Your task to perform on an android device: toggle javascript in the chrome app Image 0: 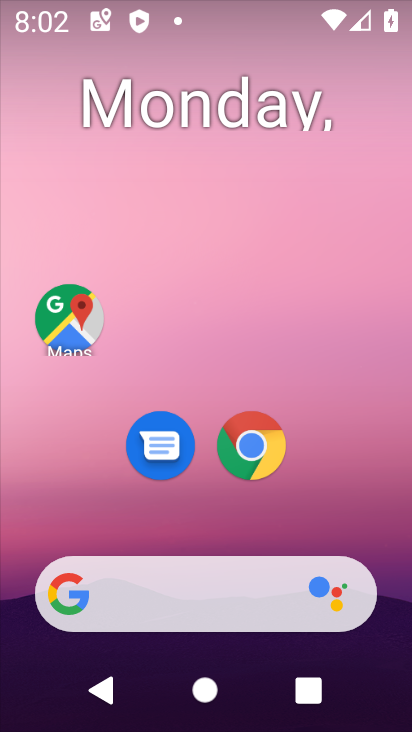
Step 0: click (267, 453)
Your task to perform on an android device: toggle javascript in the chrome app Image 1: 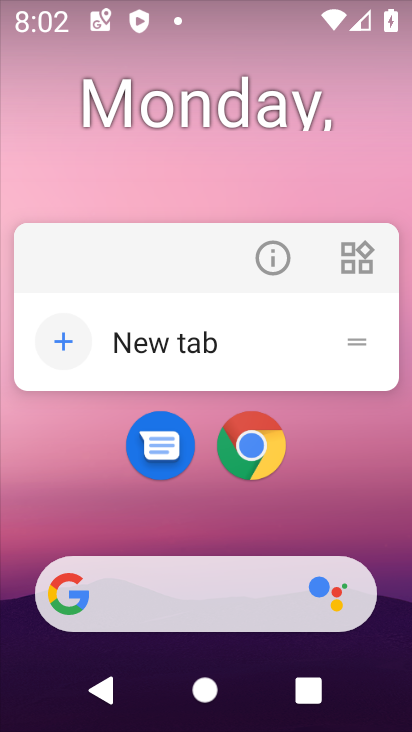
Step 1: click (264, 452)
Your task to perform on an android device: toggle javascript in the chrome app Image 2: 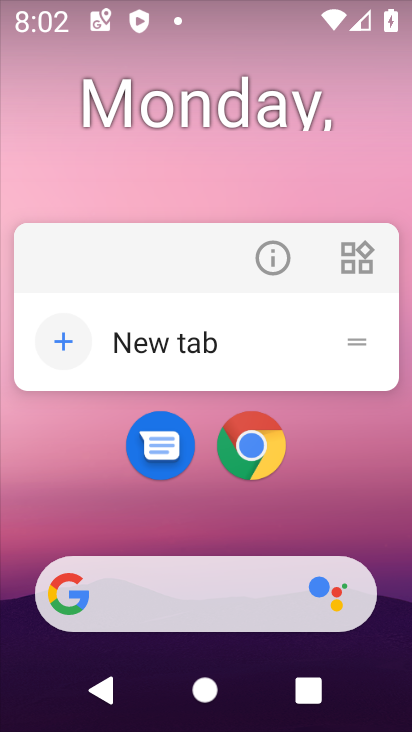
Step 2: click (255, 450)
Your task to perform on an android device: toggle javascript in the chrome app Image 3: 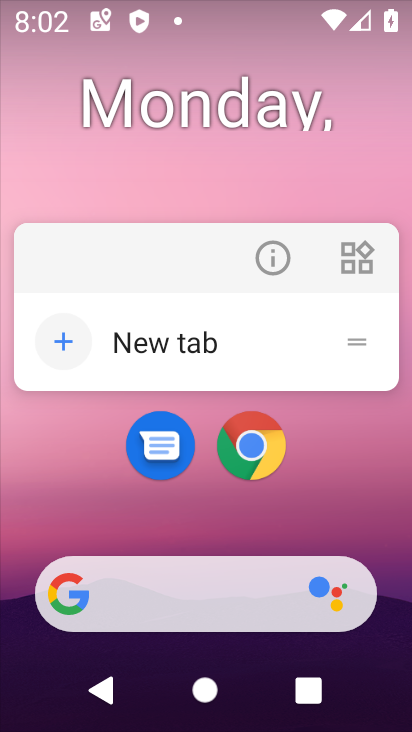
Step 3: click (257, 480)
Your task to perform on an android device: toggle javascript in the chrome app Image 4: 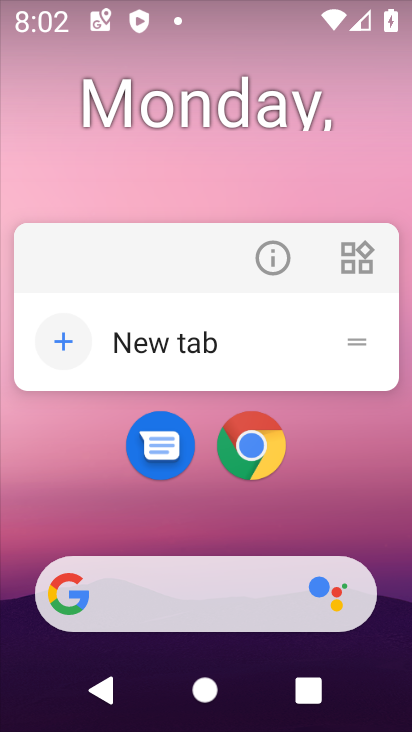
Step 4: click (243, 465)
Your task to perform on an android device: toggle javascript in the chrome app Image 5: 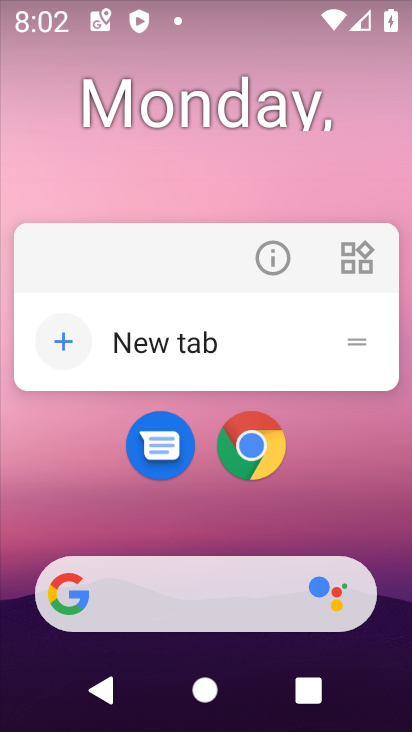
Step 5: click (255, 448)
Your task to perform on an android device: toggle javascript in the chrome app Image 6: 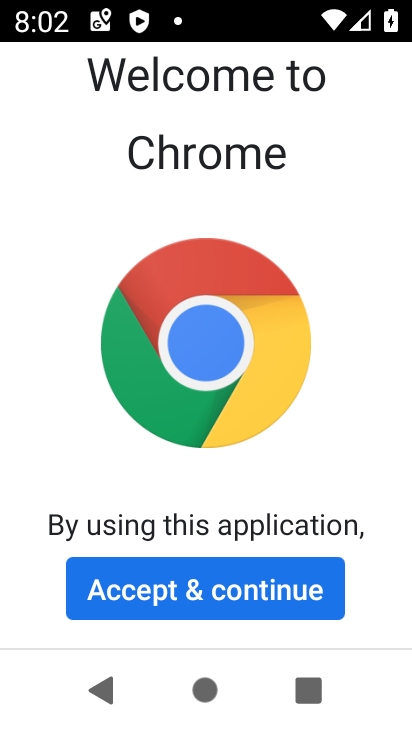
Step 6: click (220, 575)
Your task to perform on an android device: toggle javascript in the chrome app Image 7: 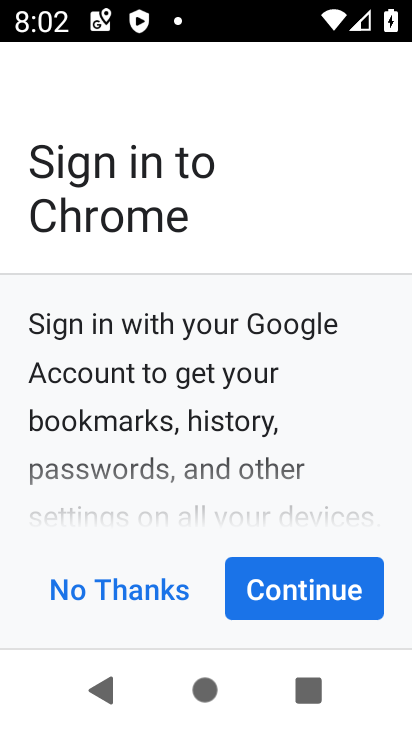
Step 7: click (314, 602)
Your task to perform on an android device: toggle javascript in the chrome app Image 8: 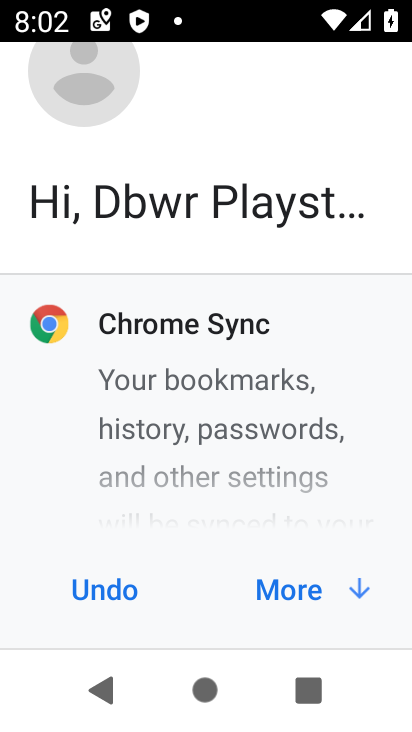
Step 8: click (314, 602)
Your task to perform on an android device: toggle javascript in the chrome app Image 9: 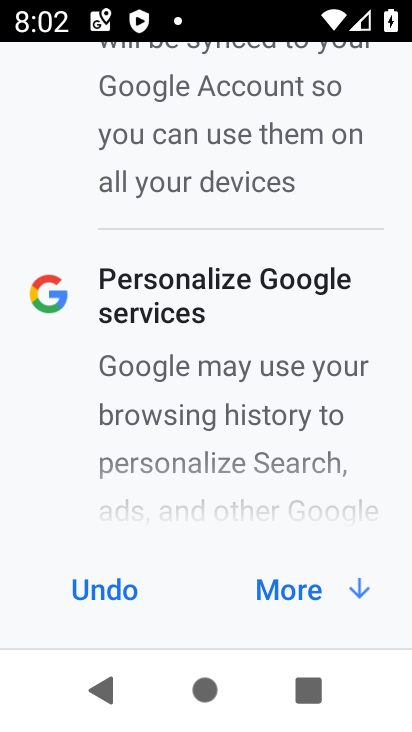
Step 9: click (307, 596)
Your task to perform on an android device: toggle javascript in the chrome app Image 10: 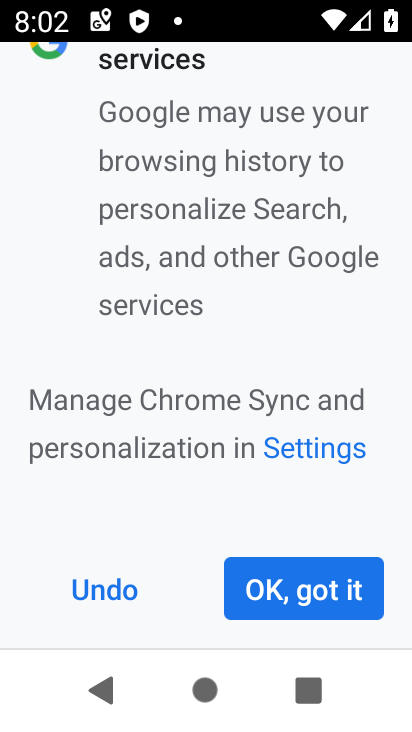
Step 10: click (333, 605)
Your task to perform on an android device: toggle javascript in the chrome app Image 11: 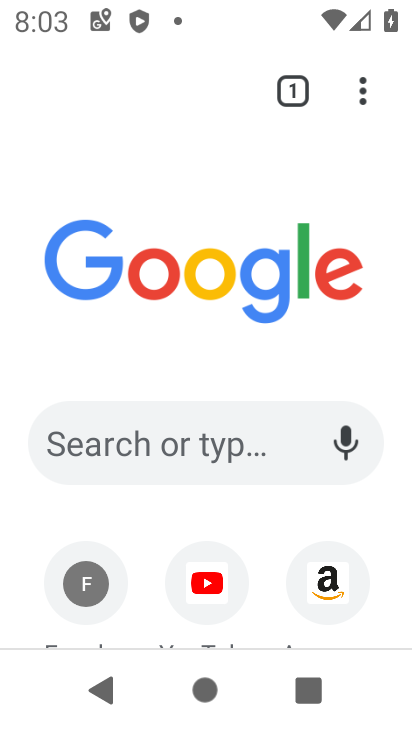
Step 11: click (357, 104)
Your task to perform on an android device: toggle javascript in the chrome app Image 12: 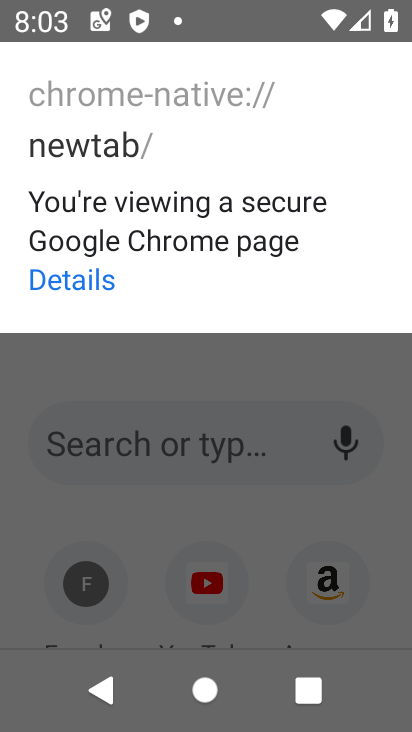
Step 12: press back button
Your task to perform on an android device: toggle javascript in the chrome app Image 13: 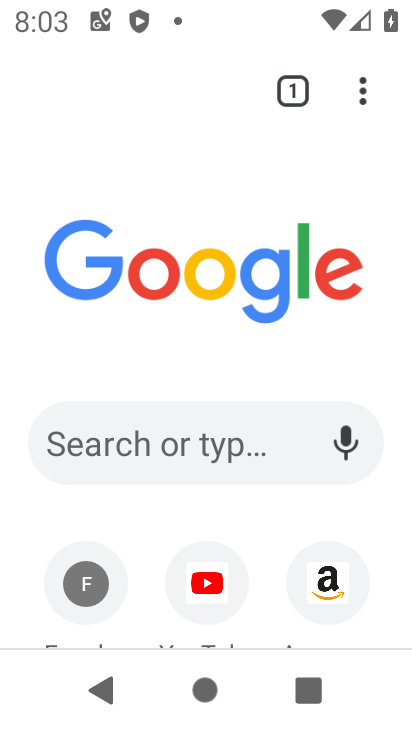
Step 13: click (379, 103)
Your task to perform on an android device: toggle javascript in the chrome app Image 14: 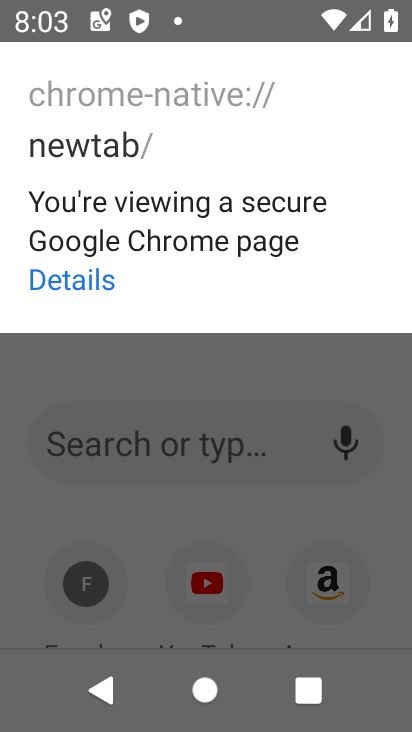
Step 14: press back button
Your task to perform on an android device: toggle javascript in the chrome app Image 15: 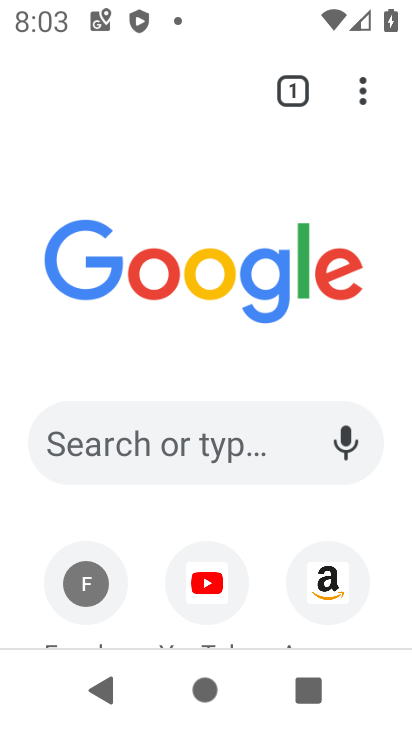
Step 15: drag from (361, 86) to (260, 454)
Your task to perform on an android device: toggle javascript in the chrome app Image 16: 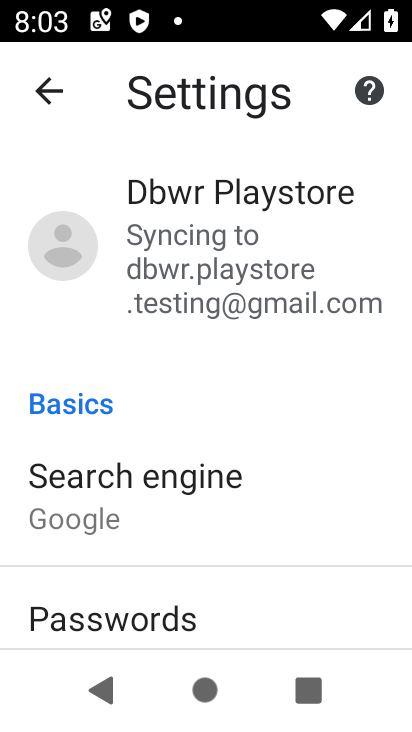
Step 16: drag from (155, 583) to (272, 169)
Your task to perform on an android device: toggle javascript in the chrome app Image 17: 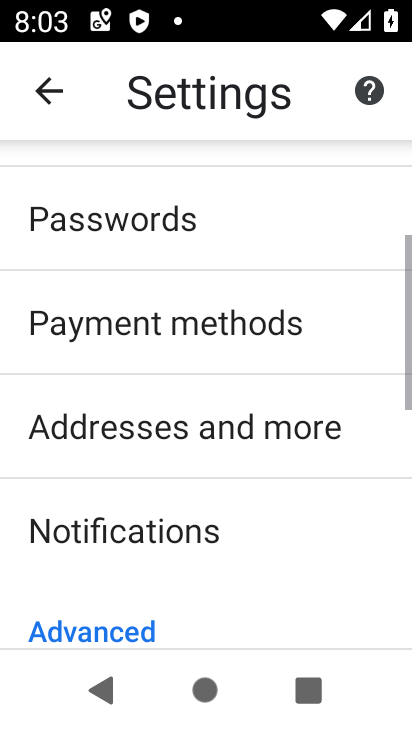
Step 17: drag from (246, 588) to (306, 269)
Your task to perform on an android device: toggle javascript in the chrome app Image 18: 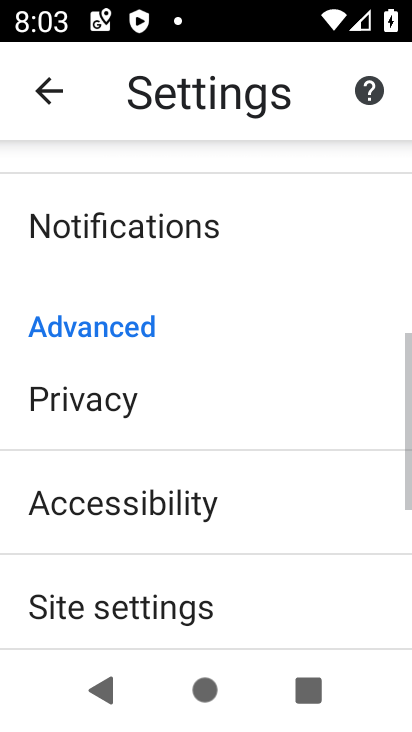
Step 18: drag from (224, 578) to (245, 371)
Your task to perform on an android device: toggle javascript in the chrome app Image 19: 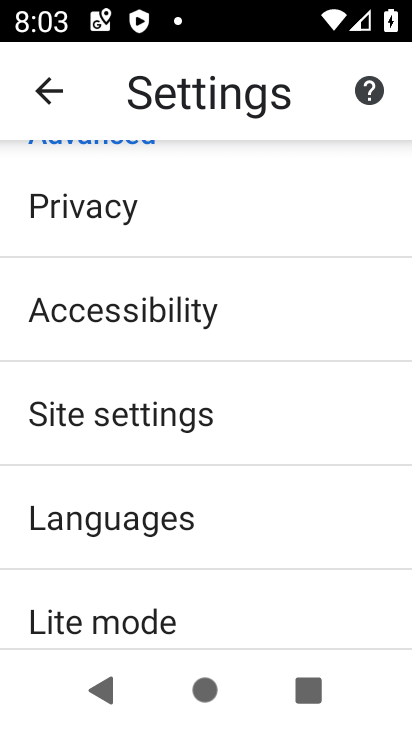
Step 19: click (188, 425)
Your task to perform on an android device: toggle javascript in the chrome app Image 20: 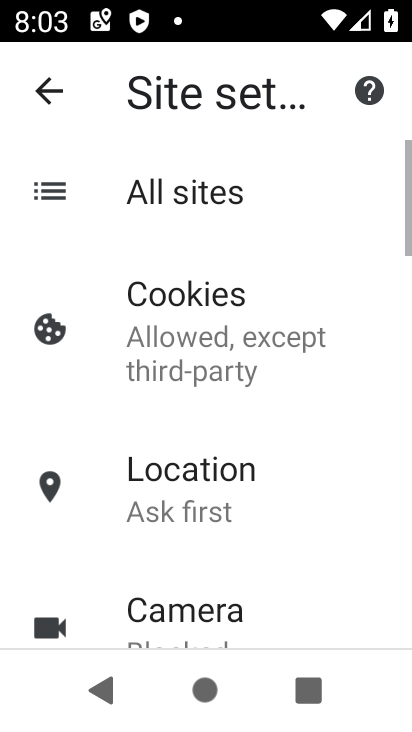
Step 20: drag from (215, 626) to (284, 284)
Your task to perform on an android device: toggle javascript in the chrome app Image 21: 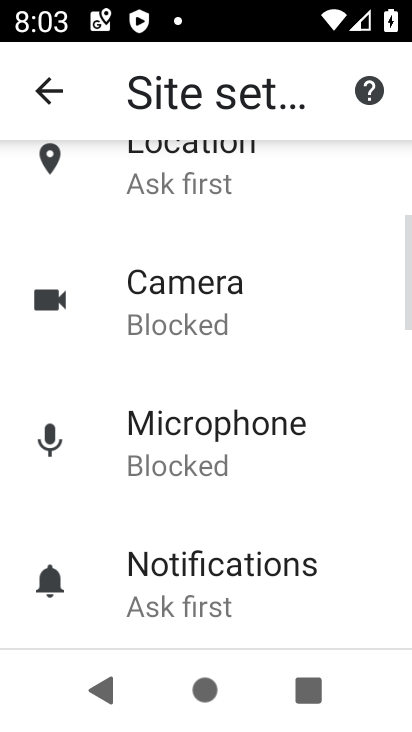
Step 21: drag from (245, 556) to (292, 302)
Your task to perform on an android device: toggle javascript in the chrome app Image 22: 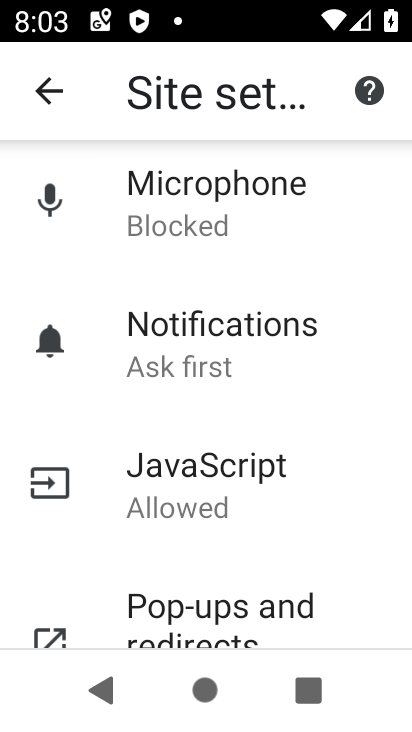
Step 22: click (251, 489)
Your task to perform on an android device: toggle javascript in the chrome app Image 23: 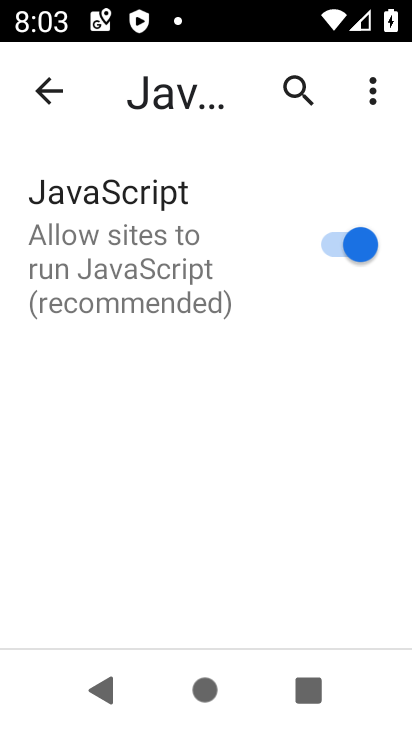
Step 23: click (334, 240)
Your task to perform on an android device: toggle javascript in the chrome app Image 24: 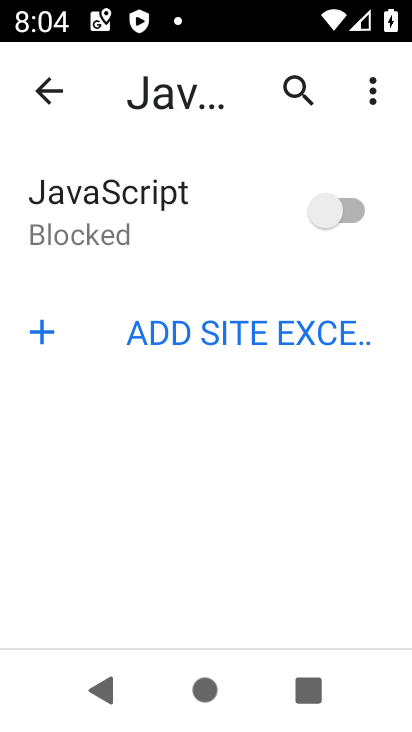
Step 24: task complete